Your task to perform on an android device: Open internet settings Image 0: 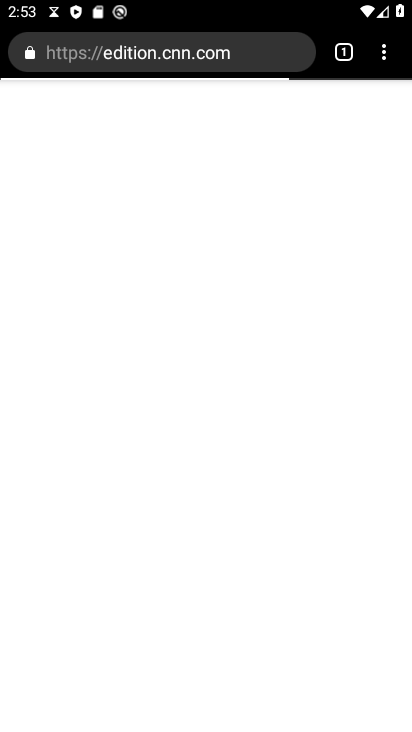
Step 0: drag from (214, 603) to (302, 232)
Your task to perform on an android device: Open internet settings Image 1: 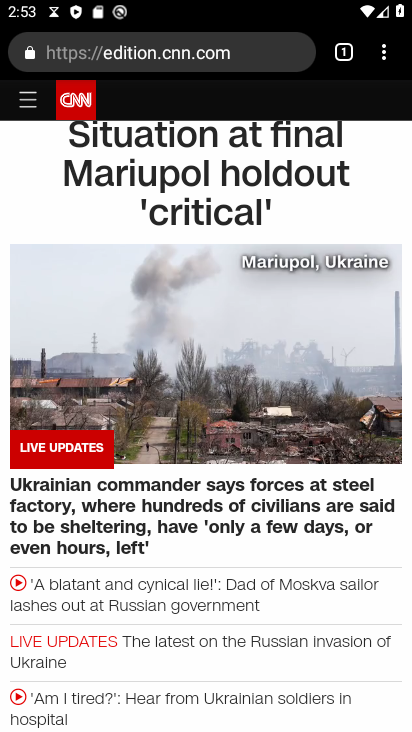
Step 1: press home button
Your task to perform on an android device: Open internet settings Image 2: 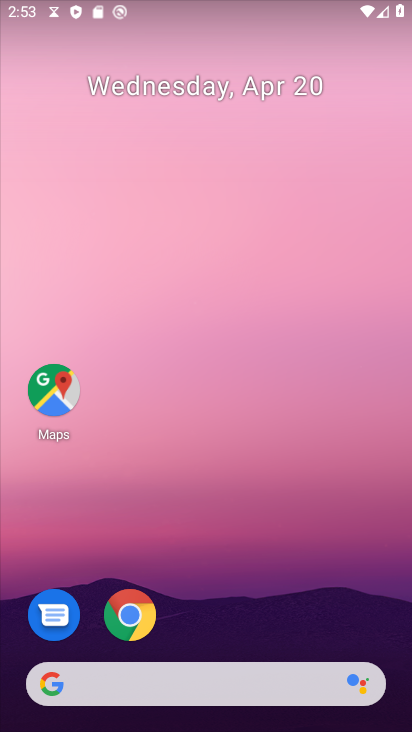
Step 2: drag from (192, 630) to (248, 250)
Your task to perform on an android device: Open internet settings Image 3: 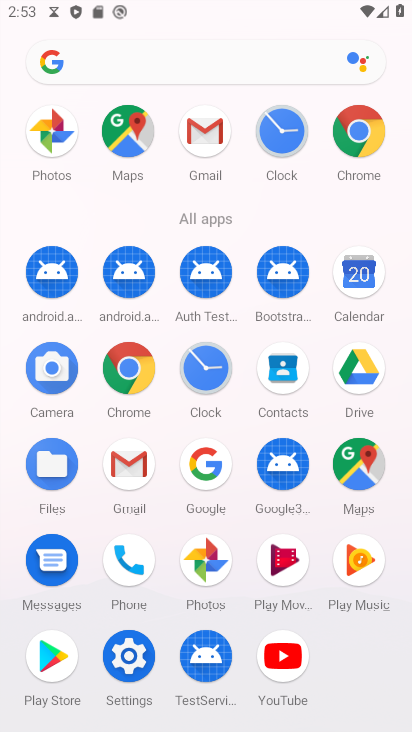
Step 3: click (136, 664)
Your task to perform on an android device: Open internet settings Image 4: 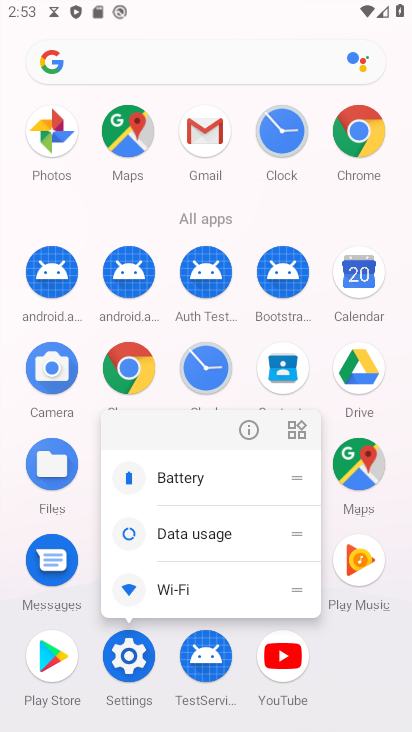
Step 4: click (249, 432)
Your task to perform on an android device: Open internet settings Image 5: 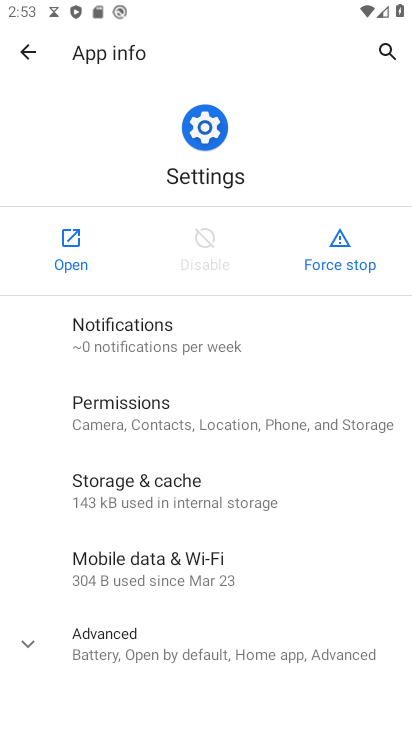
Step 5: click (76, 238)
Your task to perform on an android device: Open internet settings Image 6: 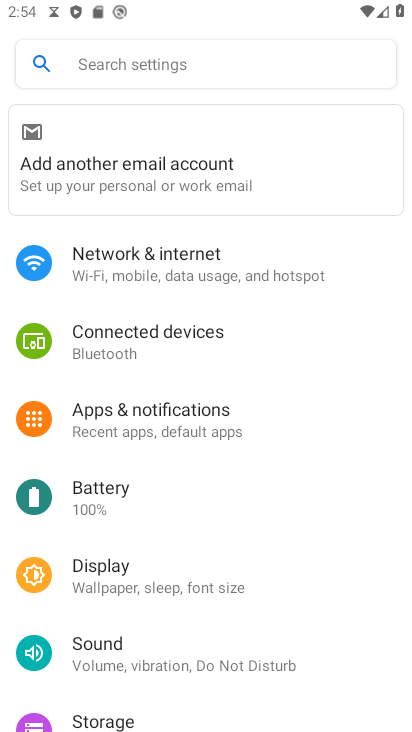
Step 6: click (116, 255)
Your task to perform on an android device: Open internet settings Image 7: 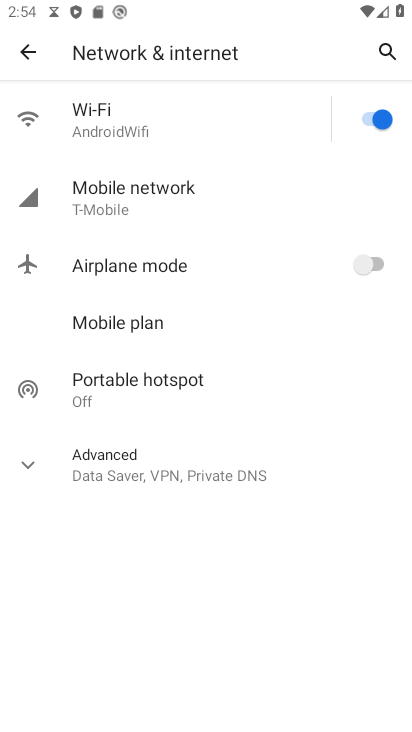
Step 7: task complete